Your task to perform on an android device: install app "DoorDash - Dasher" Image 0: 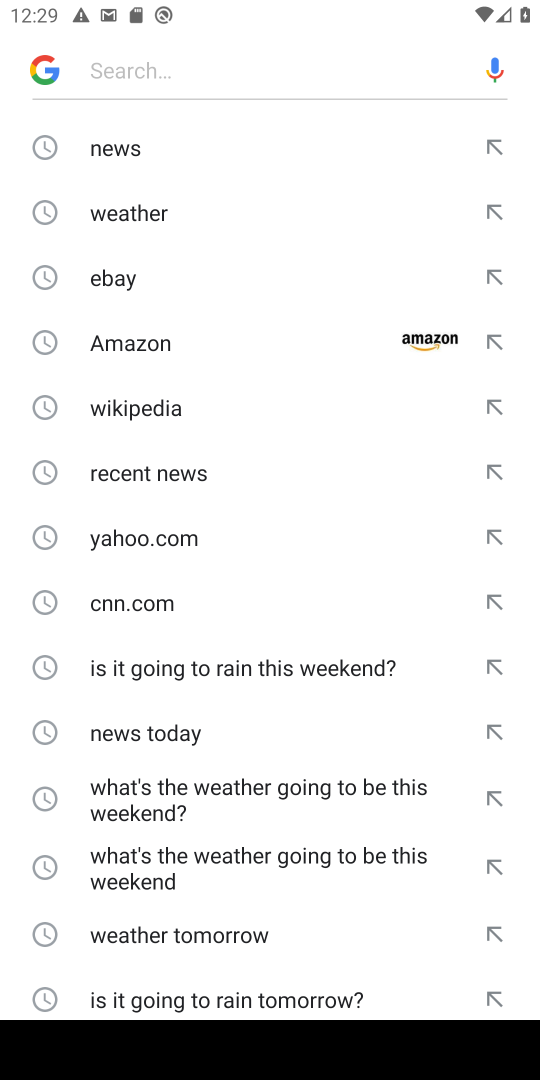
Step 0: press home button
Your task to perform on an android device: install app "DoorDash - Dasher" Image 1: 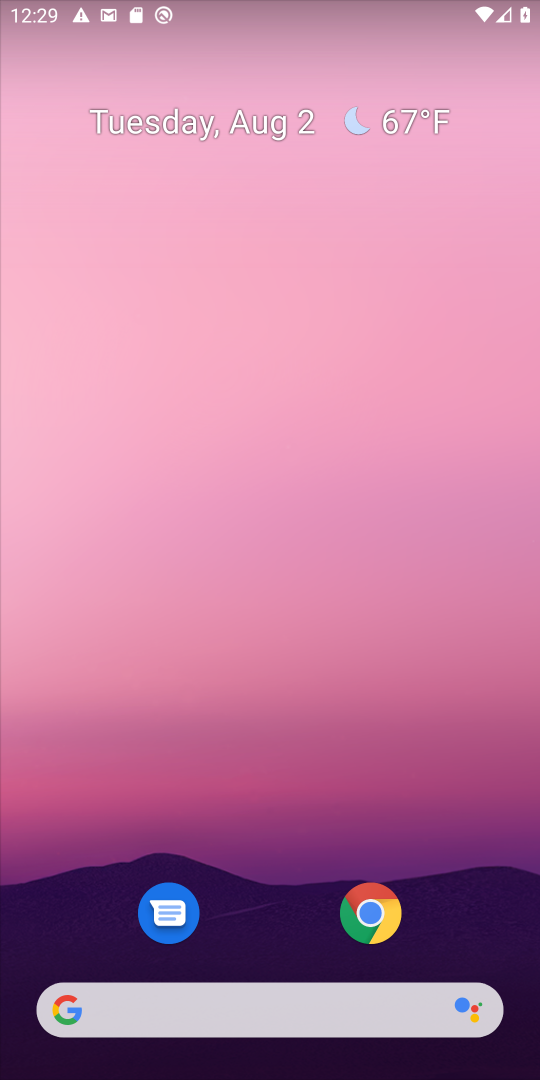
Step 1: drag from (502, 814) to (460, 302)
Your task to perform on an android device: install app "DoorDash - Dasher" Image 2: 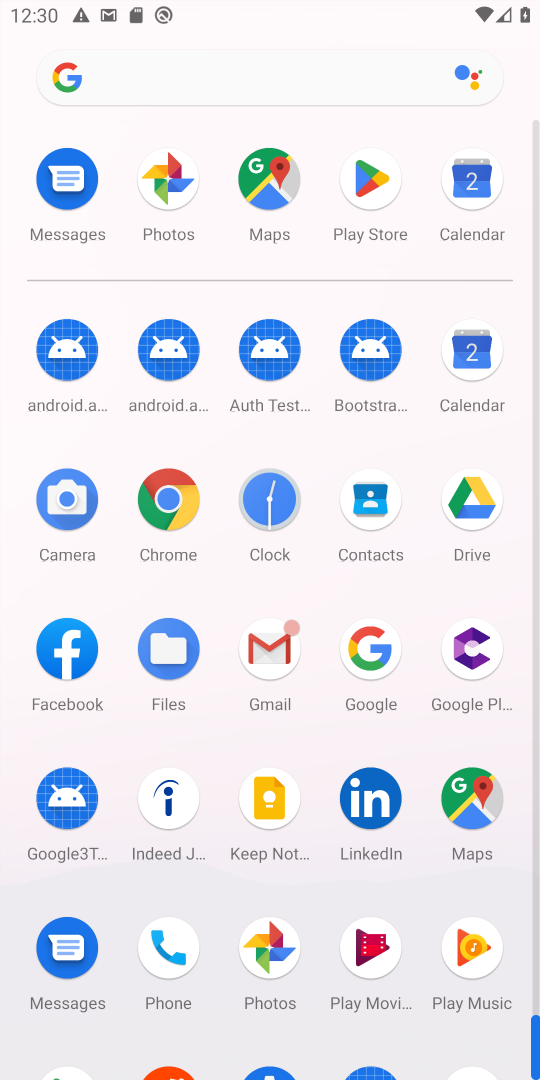
Step 2: click (353, 185)
Your task to perform on an android device: install app "DoorDash - Dasher" Image 3: 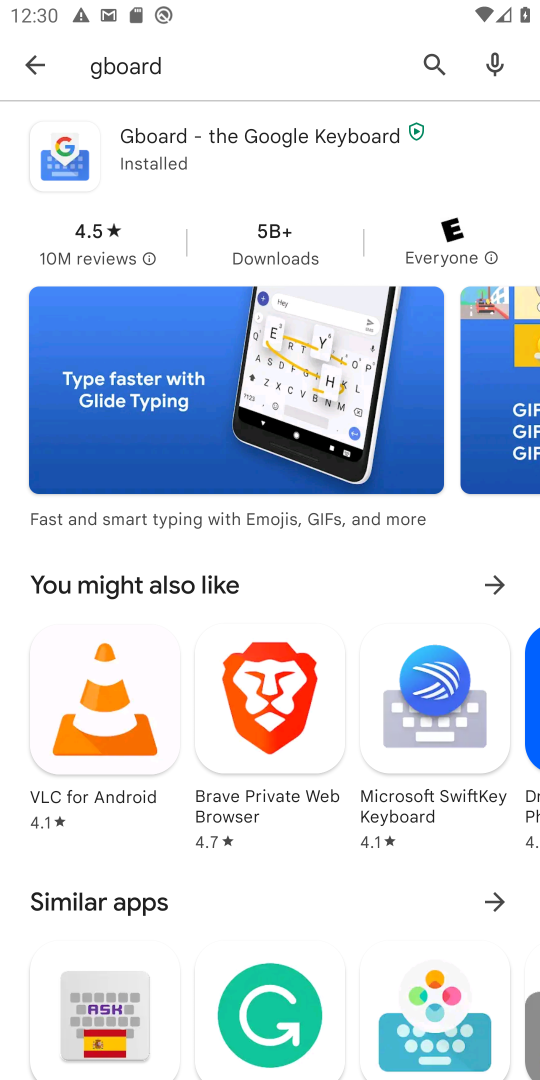
Step 3: click (422, 58)
Your task to perform on an android device: install app "DoorDash - Dasher" Image 4: 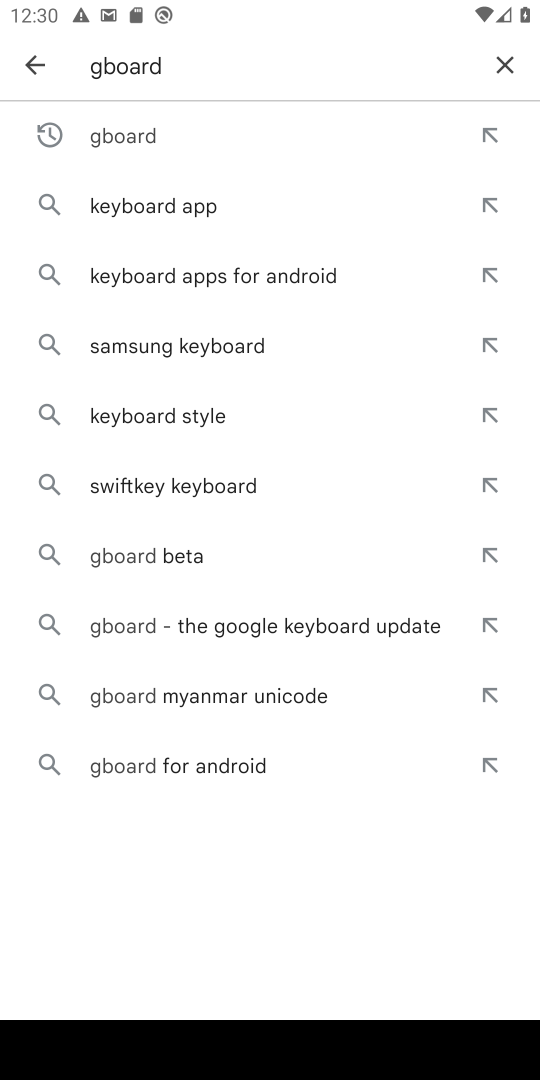
Step 4: click (506, 58)
Your task to perform on an android device: install app "DoorDash - Dasher" Image 5: 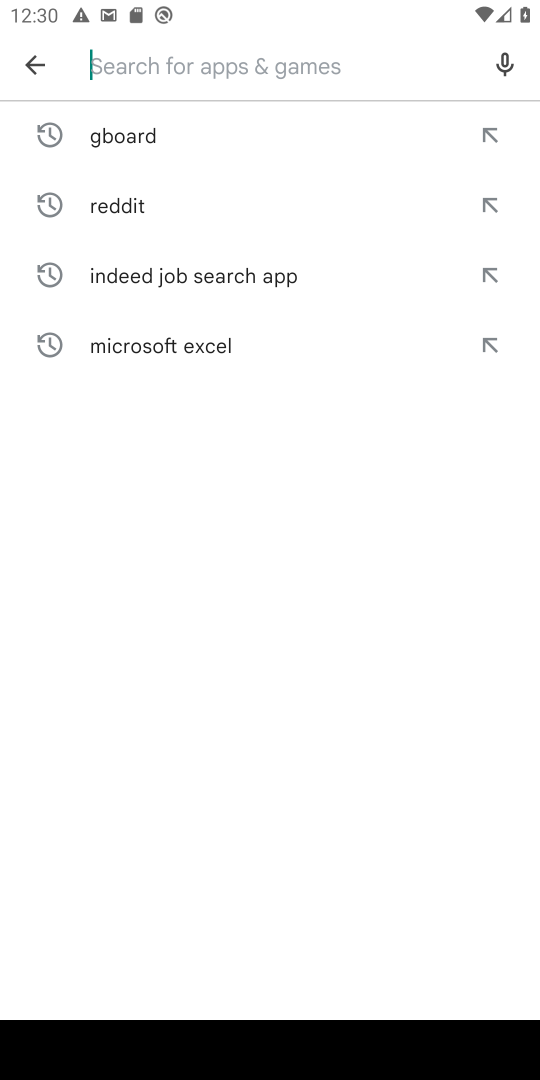
Step 5: type "DoorDash - Dasher"
Your task to perform on an android device: install app "DoorDash - Dasher" Image 6: 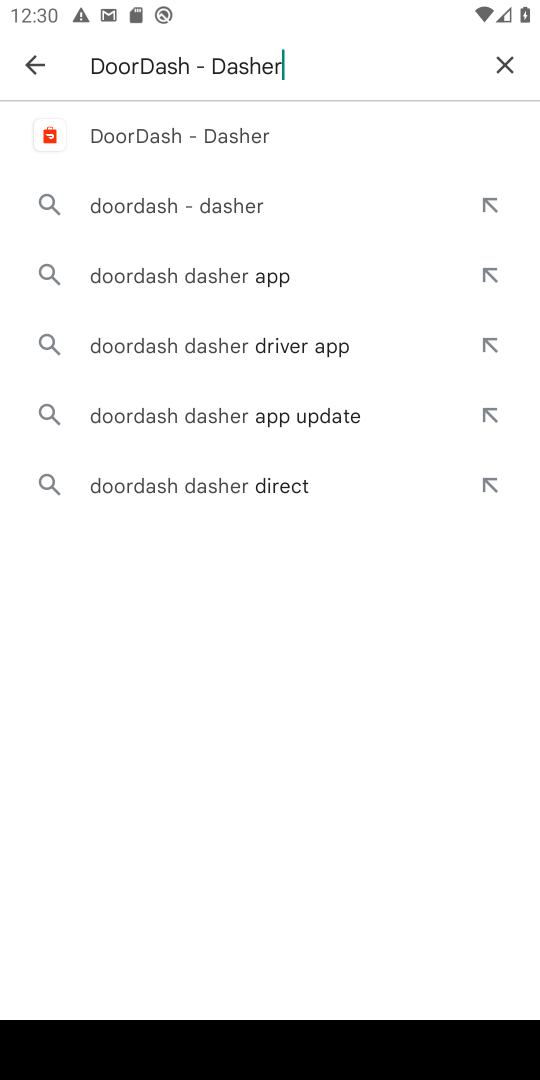
Step 6: click (112, 132)
Your task to perform on an android device: install app "DoorDash - Dasher" Image 7: 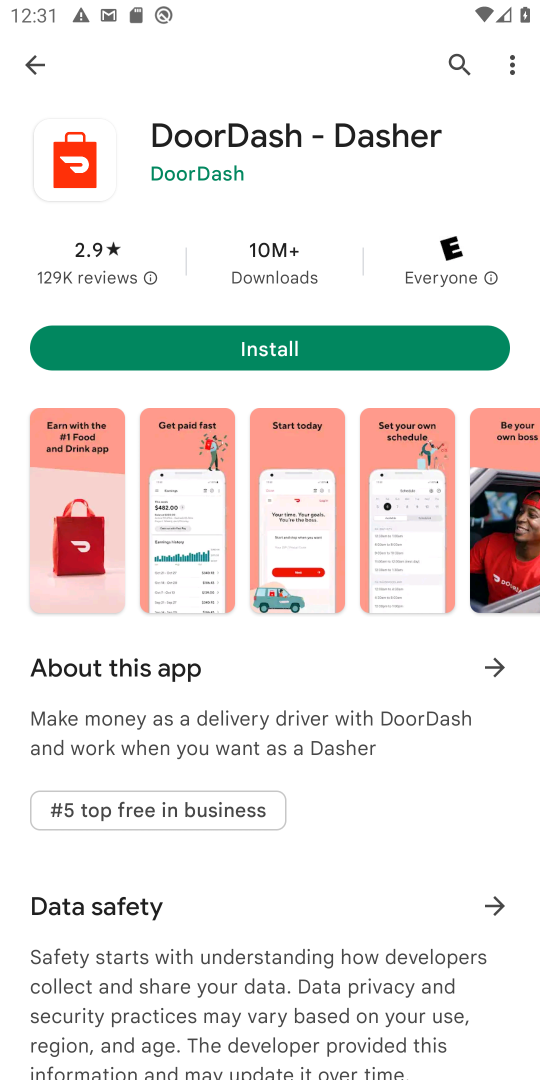
Step 7: task complete